Your task to perform on an android device: find snoozed emails in the gmail app Image 0: 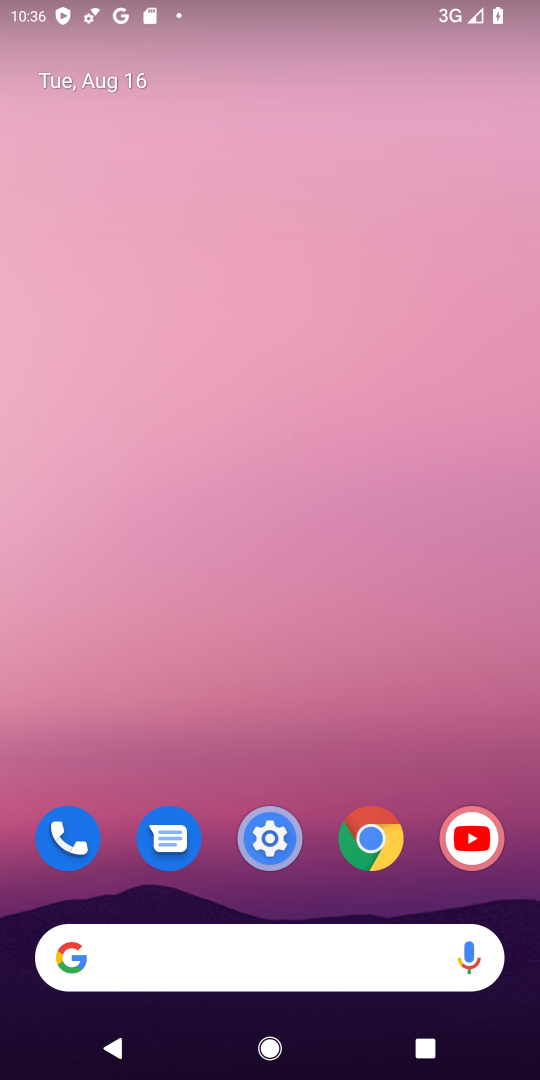
Step 0: press home button
Your task to perform on an android device: find snoozed emails in the gmail app Image 1: 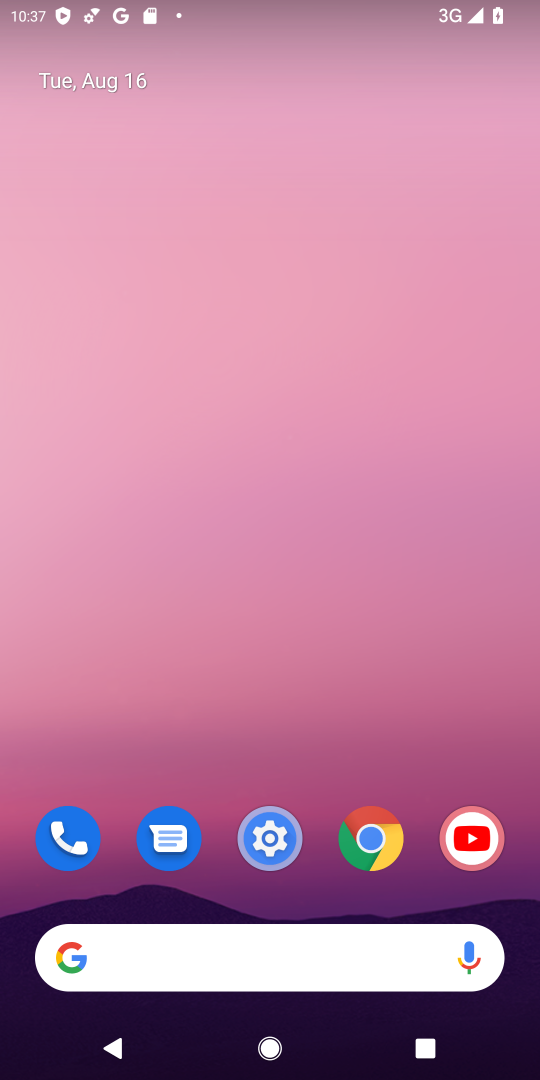
Step 1: drag from (302, 896) to (286, 273)
Your task to perform on an android device: find snoozed emails in the gmail app Image 2: 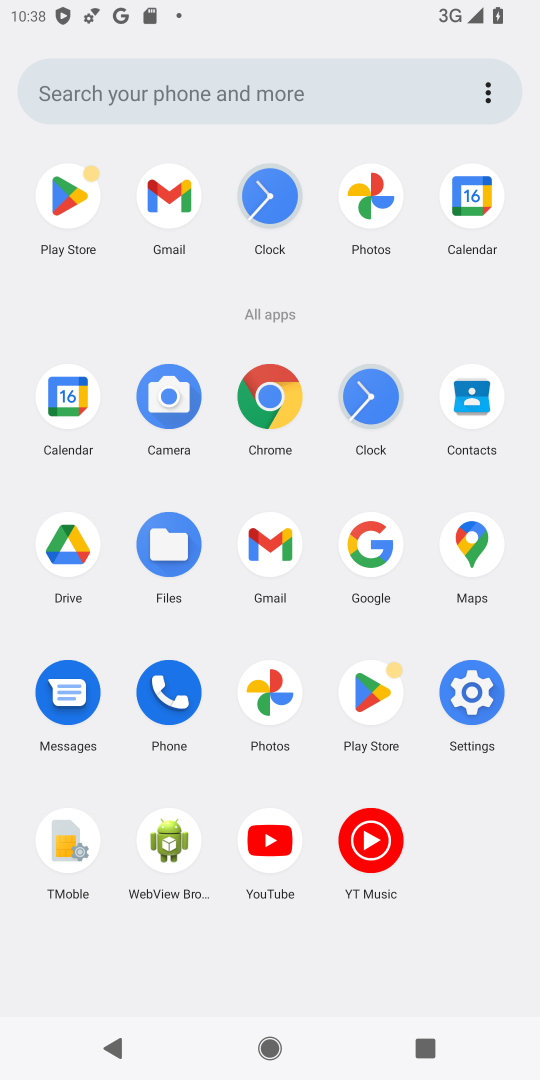
Step 2: click (163, 207)
Your task to perform on an android device: find snoozed emails in the gmail app Image 3: 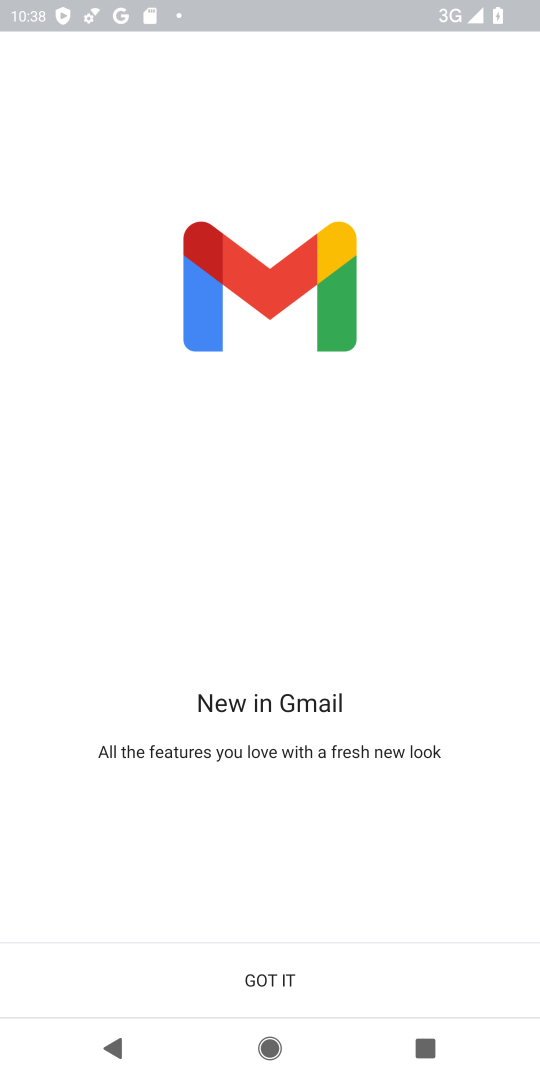
Step 3: click (272, 974)
Your task to perform on an android device: find snoozed emails in the gmail app Image 4: 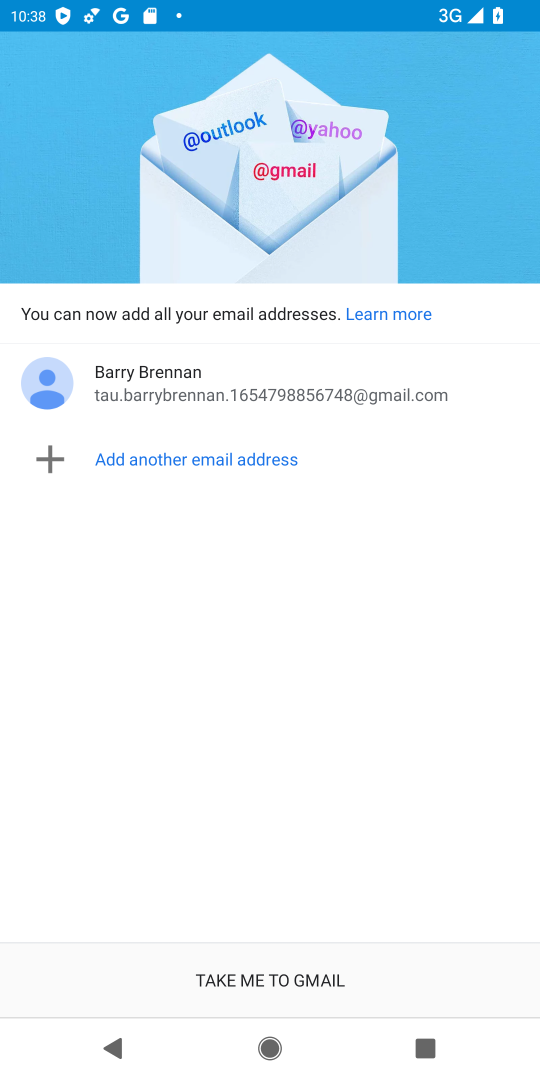
Step 4: click (272, 974)
Your task to perform on an android device: find snoozed emails in the gmail app Image 5: 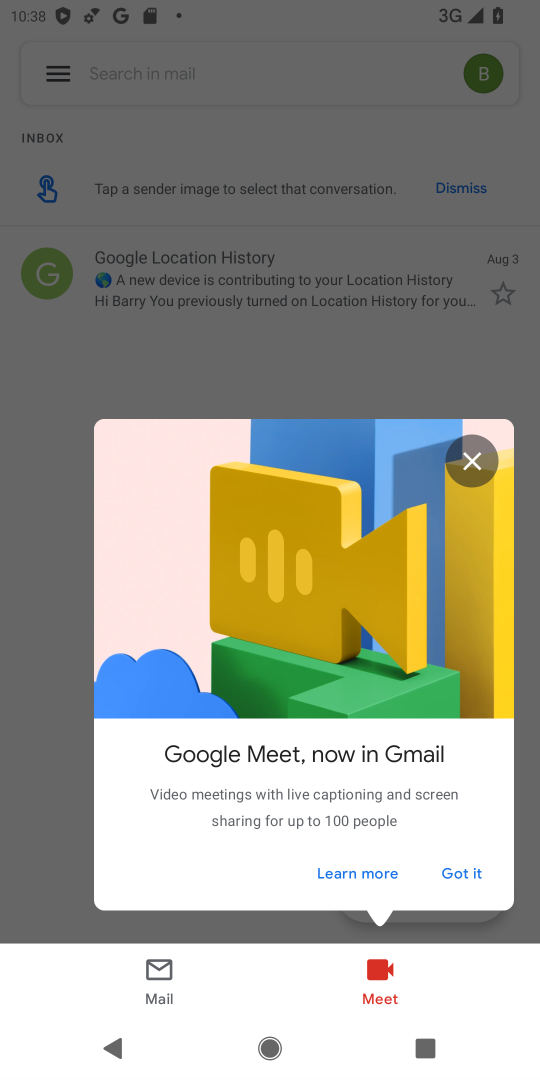
Step 5: click (470, 462)
Your task to perform on an android device: find snoozed emails in the gmail app Image 6: 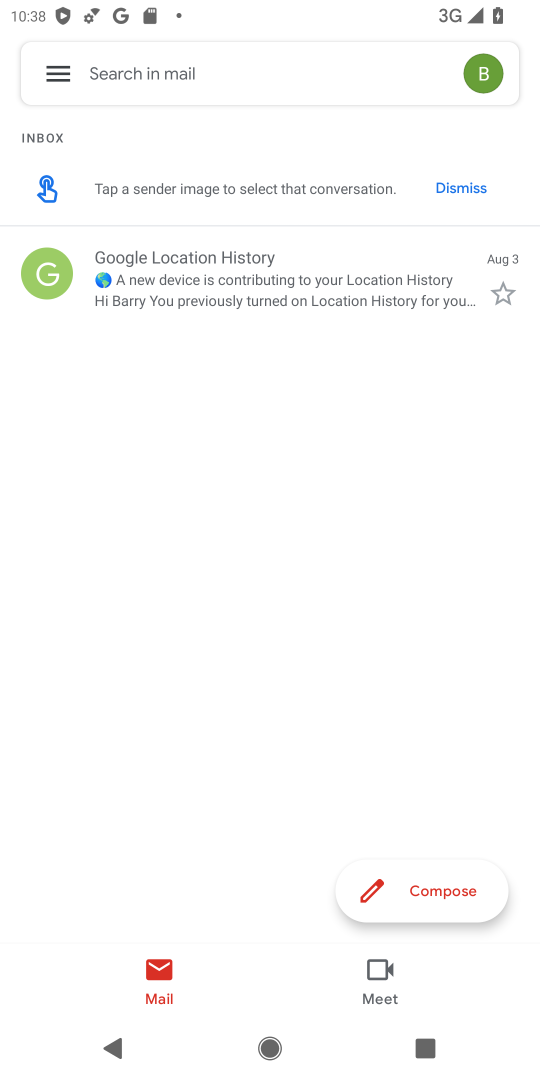
Step 6: click (56, 79)
Your task to perform on an android device: find snoozed emails in the gmail app Image 7: 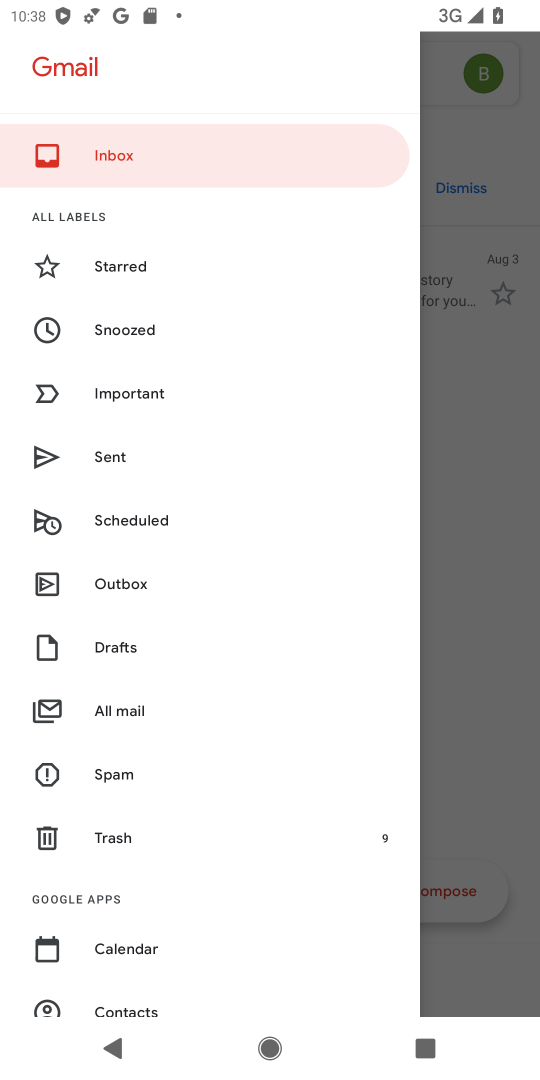
Step 7: click (129, 332)
Your task to perform on an android device: find snoozed emails in the gmail app Image 8: 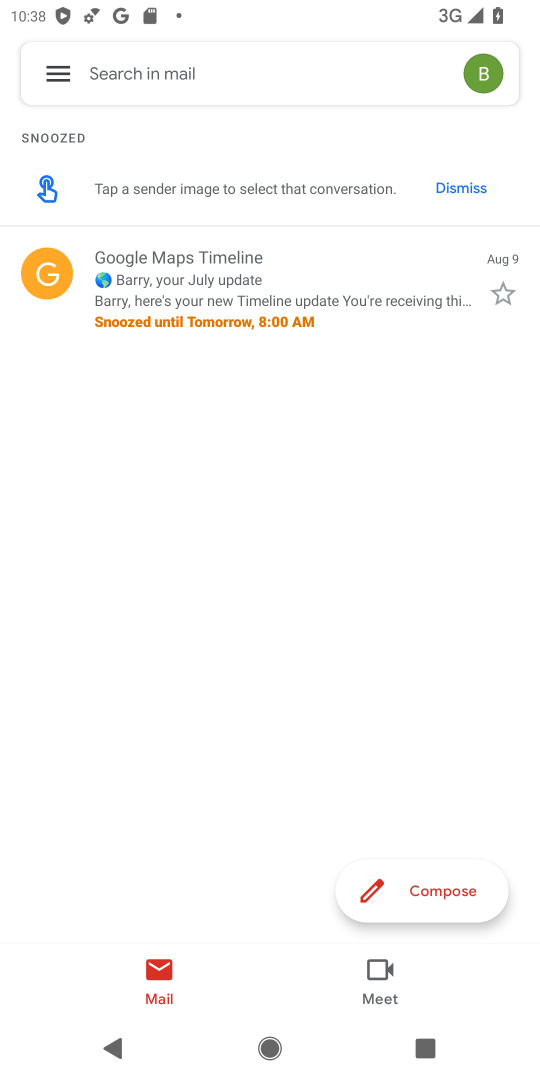
Step 8: click (169, 298)
Your task to perform on an android device: find snoozed emails in the gmail app Image 9: 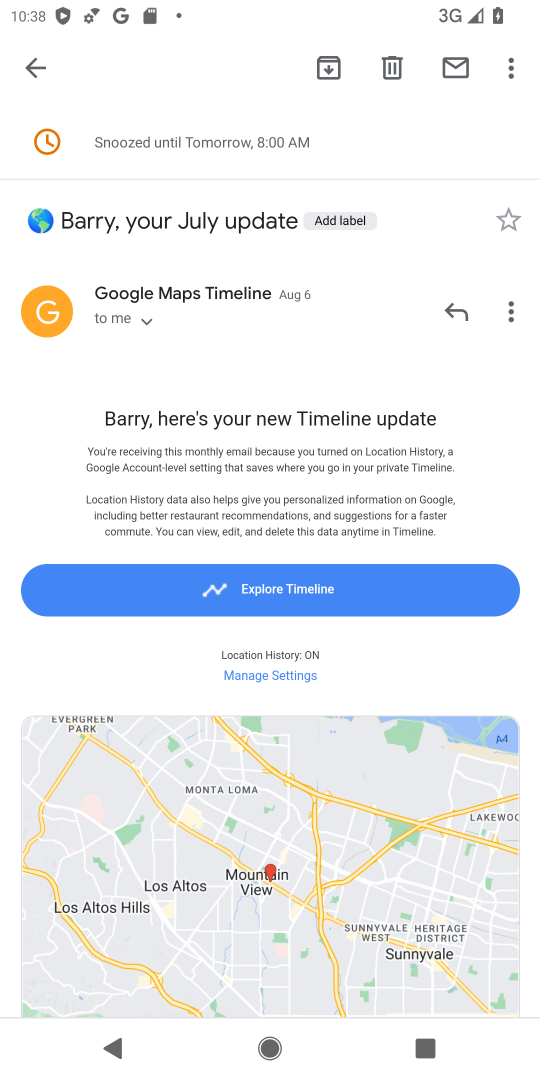
Step 9: task complete